Your task to perform on an android device: open app "Life360: Find Family & Friends" Image 0: 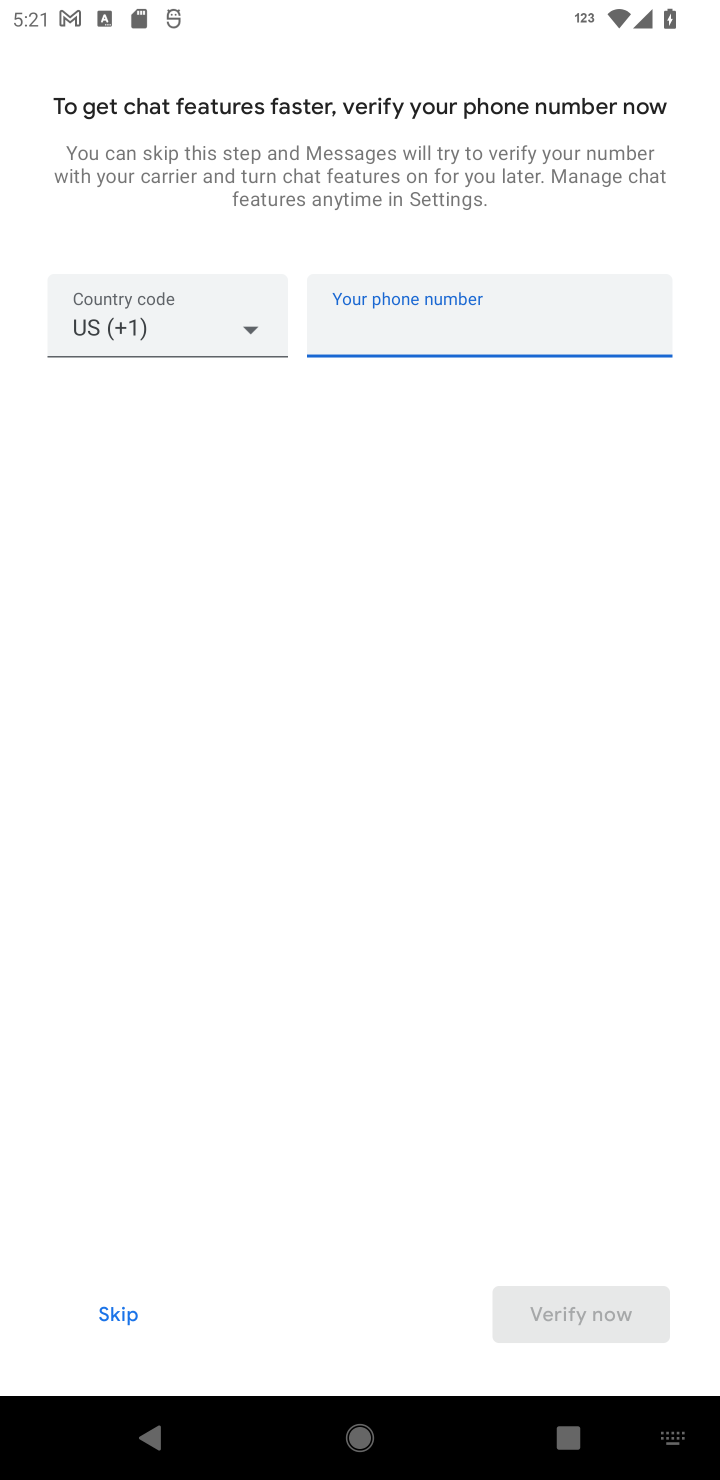
Step 0: press home button
Your task to perform on an android device: open app "Life360: Find Family & Friends" Image 1: 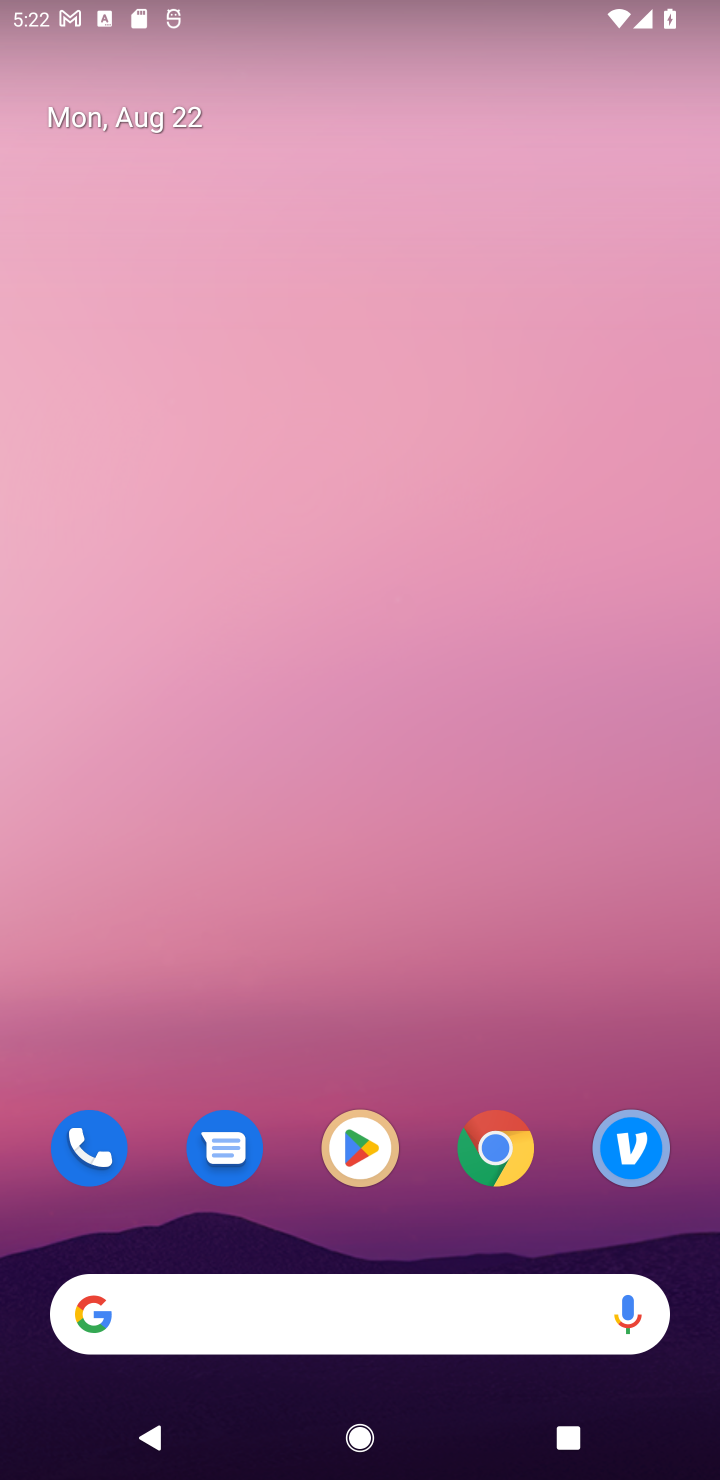
Step 1: click (366, 1155)
Your task to perform on an android device: open app "Life360: Find Family & Friends" Image 2: 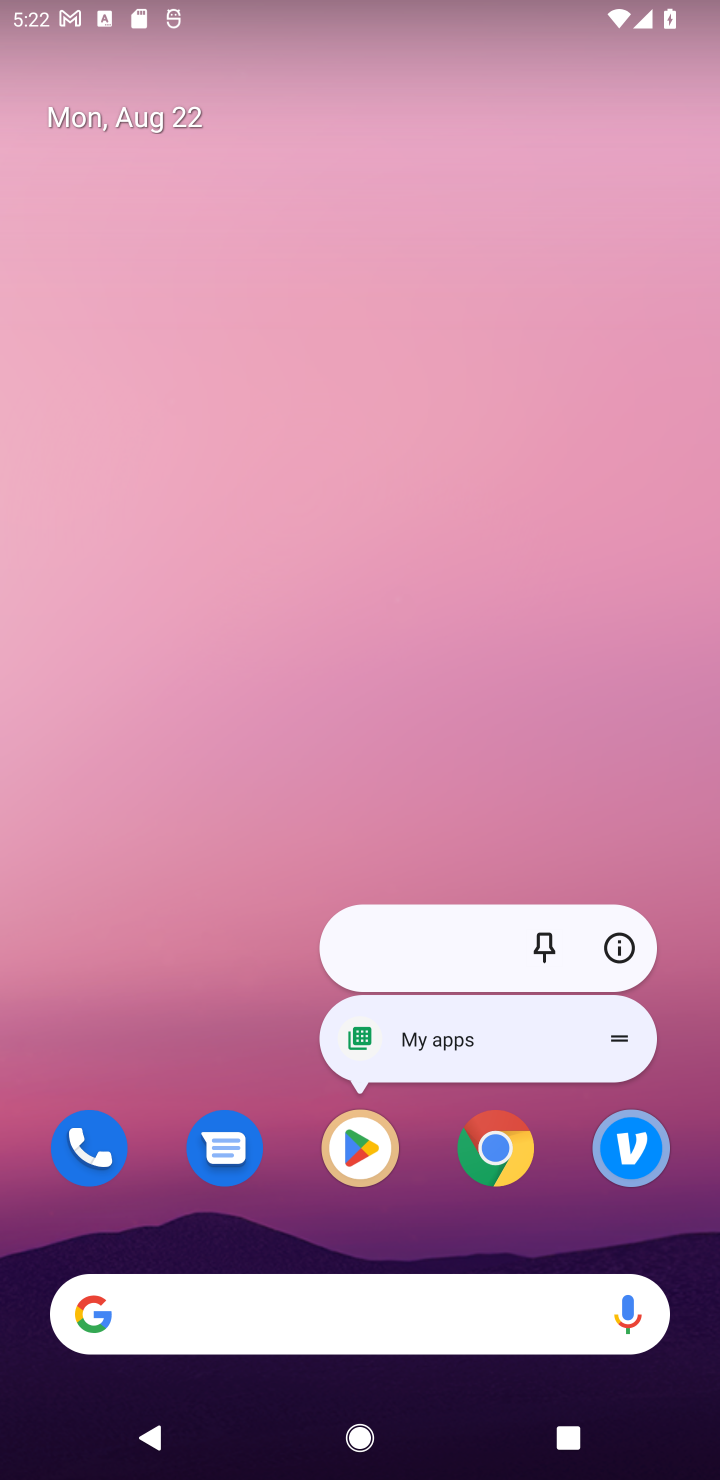
Step 2: click (366, 1164)
Your task to perform on an android device: open app "Life360: Find Family & Friends" Image 3: 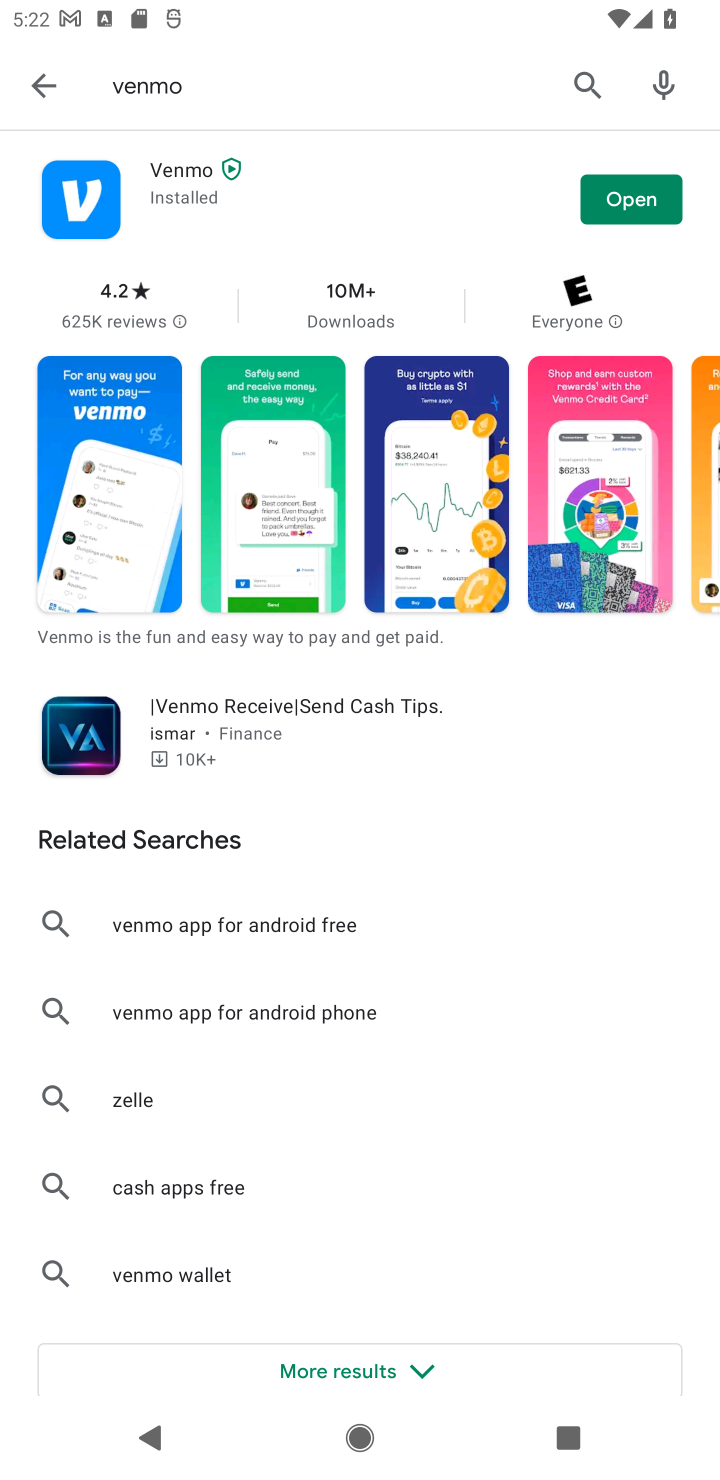
Step 3: click (581, 72)
Your task to perform on an android device: open app "Life360: Find Family & Friends" Image 4: 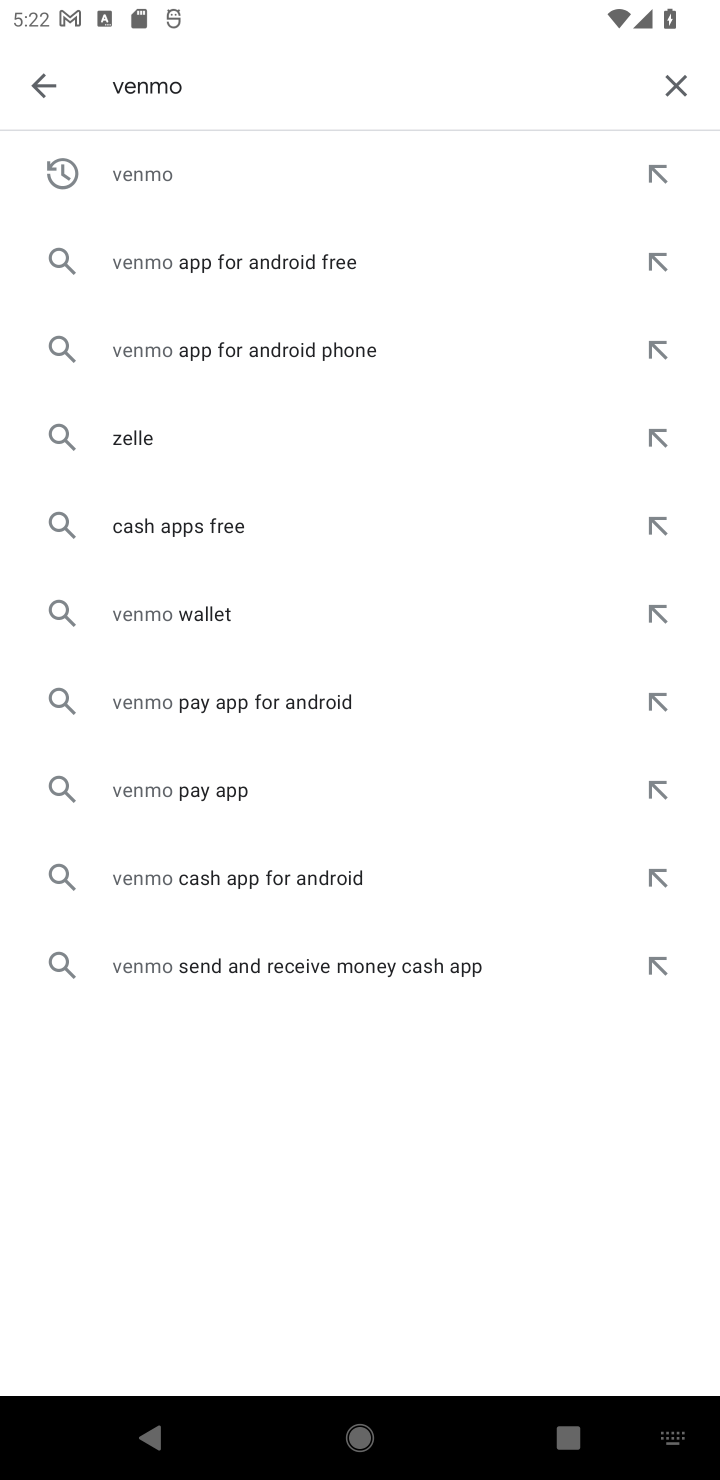
Step 4: click (685, 81)
Your task to perform on an android device: open app "Life360: Find Family & Friends" Image 5: 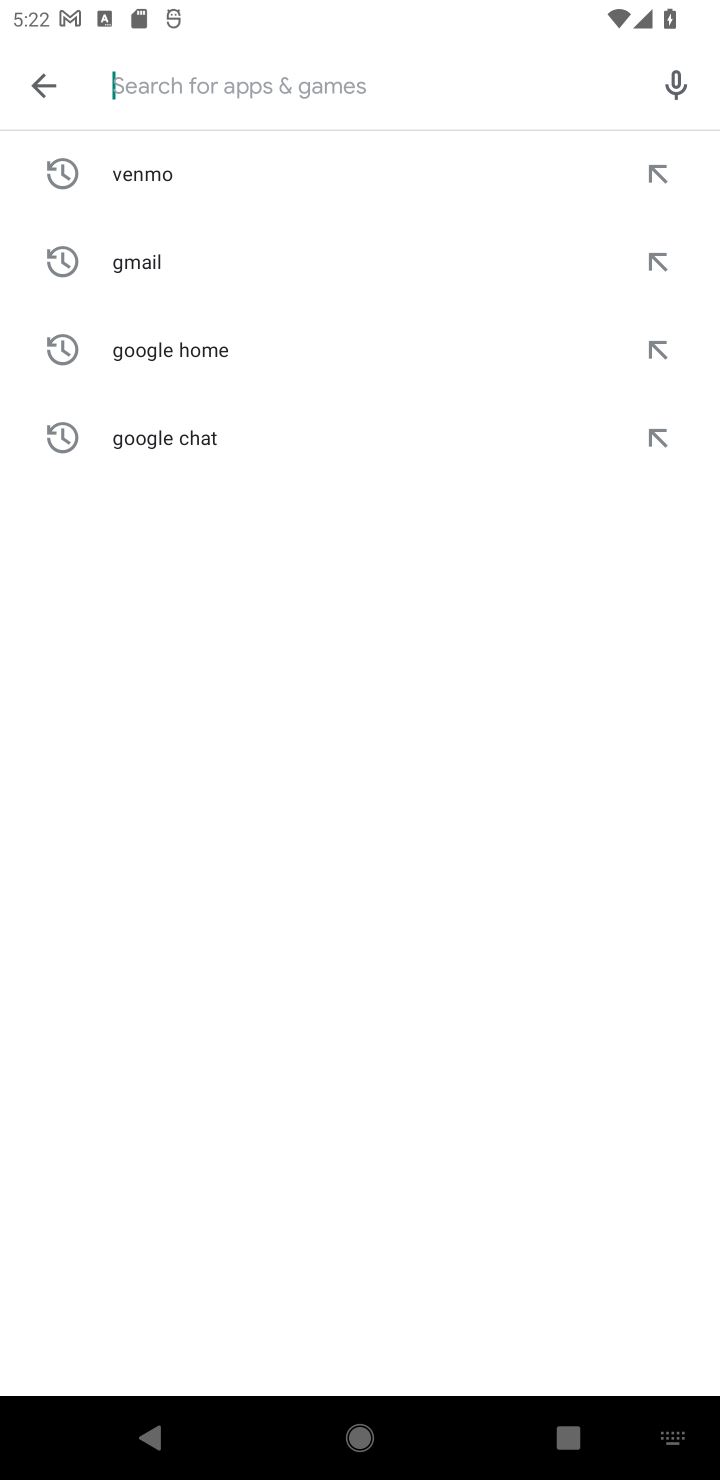
Step 5: type "Life360: Find Family & Friends"
Your task to perform on an android device: open app "Life360: Find Family & Friends" Image 6: 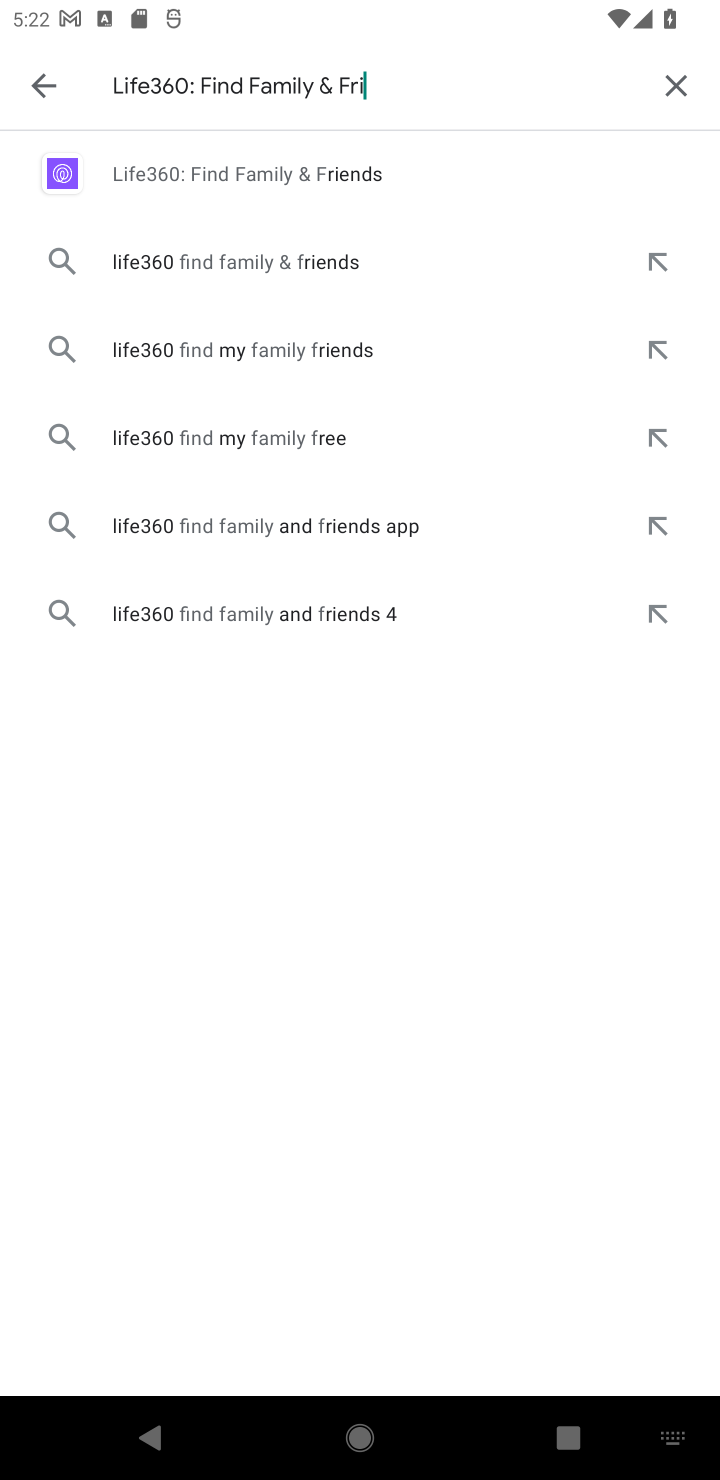
Step 6: type ""
Your task to perform on an android device: open app "Life360: Find Family & Friends" Image 7: 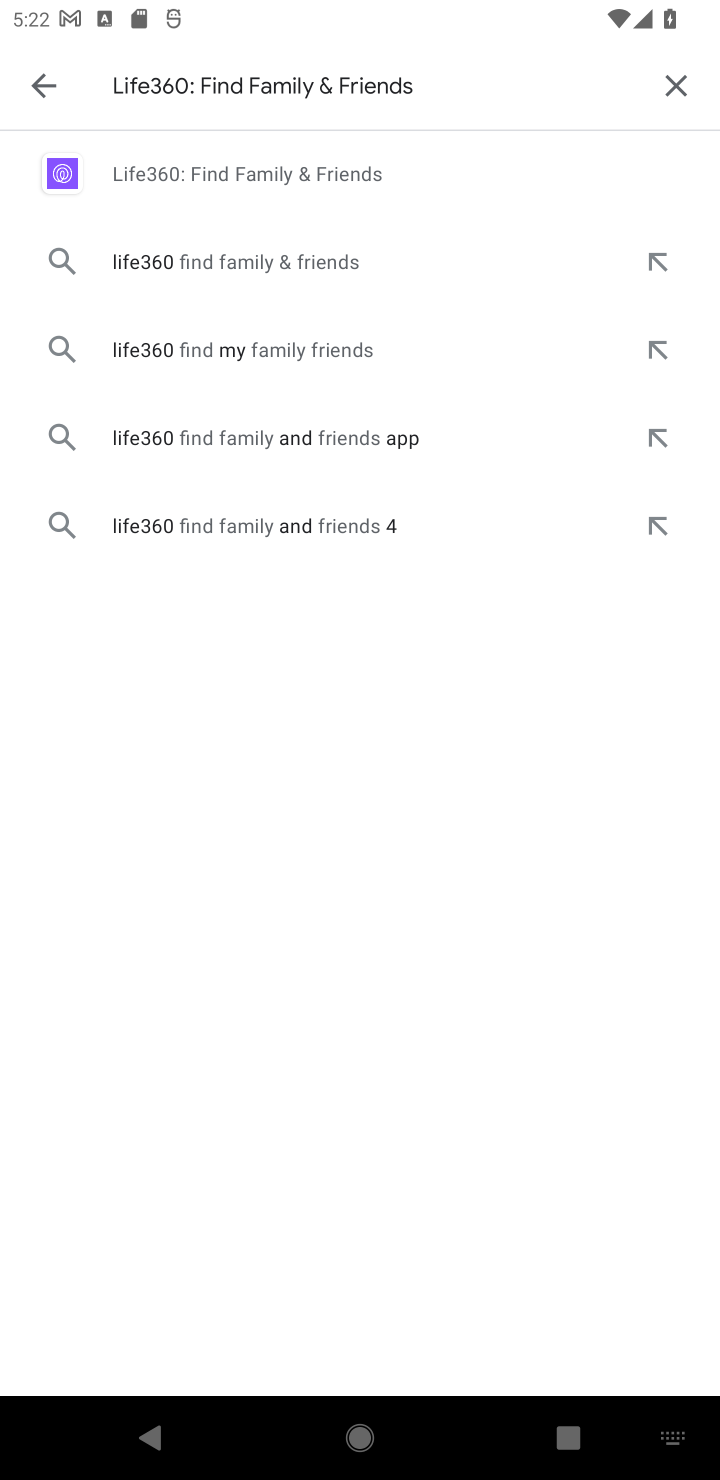
Step 7: click (261, 176)
Your task to perform on an android device: open app "Life360: Find Family & Friends" Image 8: 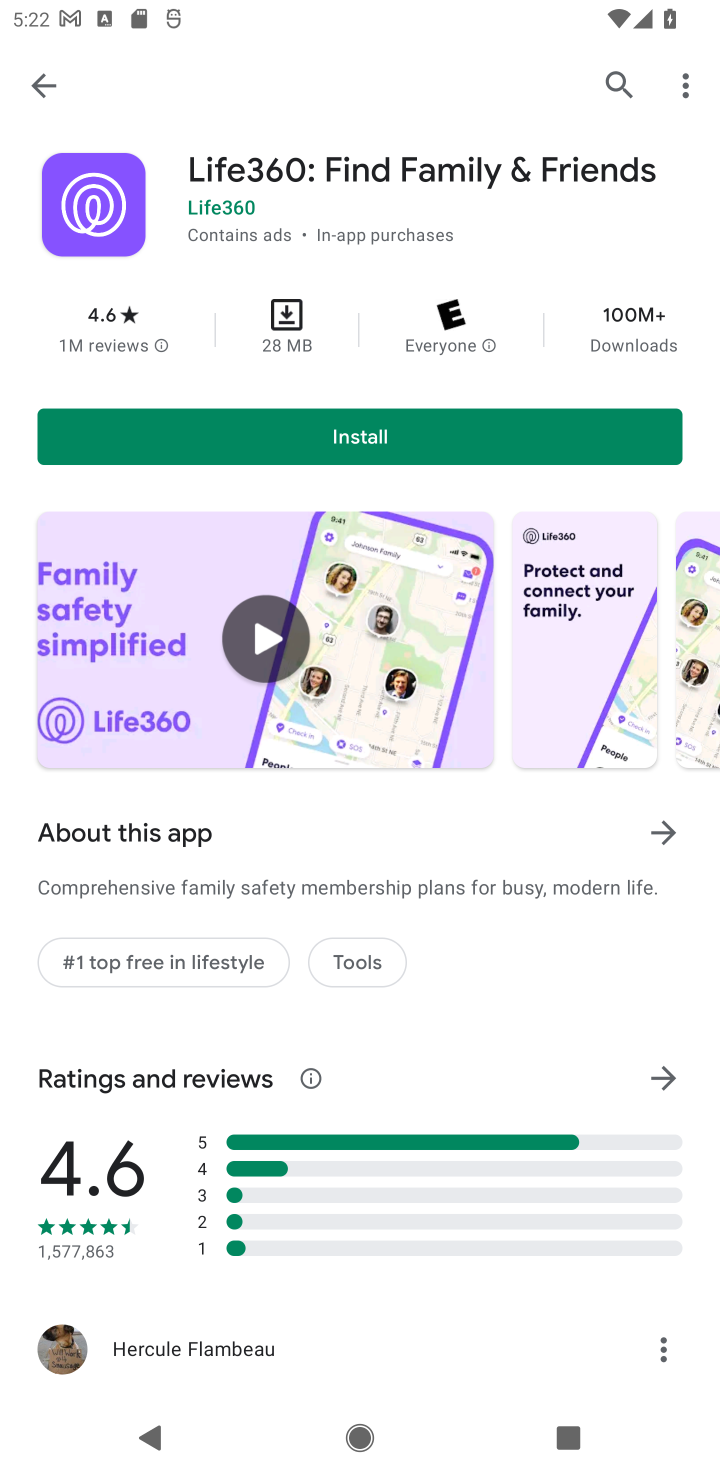
Step 8: task complete